Your task to perform on an android device: Open the calendar and show me this week's events Image 0: 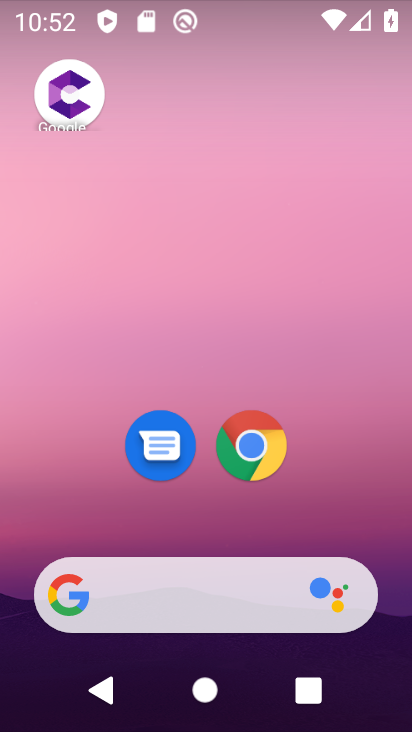
Step 0: drag from (216, 526) to (229, 110)
Your task to perform on an android device: Open the calendar and show me this week's events Image 1: 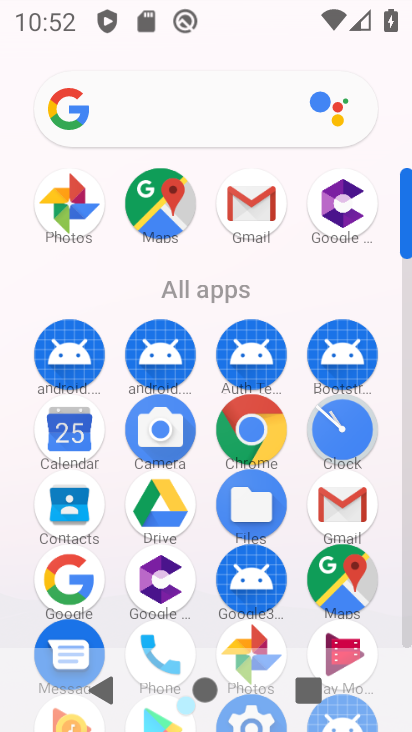
Step 1: click (66, 432)
Your task to perform on an android device: Open the calendar and show me this week's events Image 2: 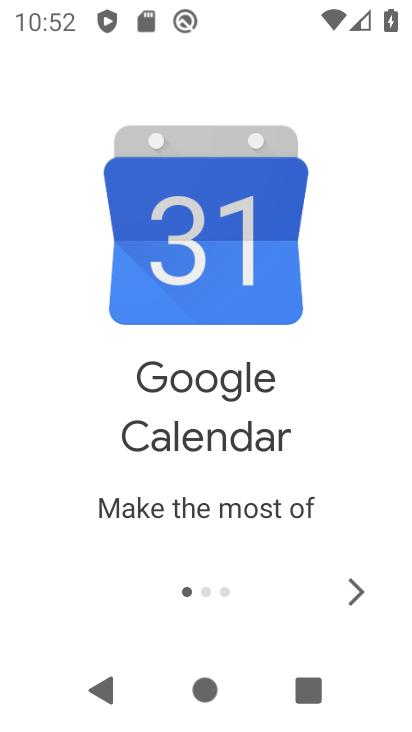
Step 2: click (353, 596)
Your task to perform on an android device: Open the calendar and show me this week's events Image 3: 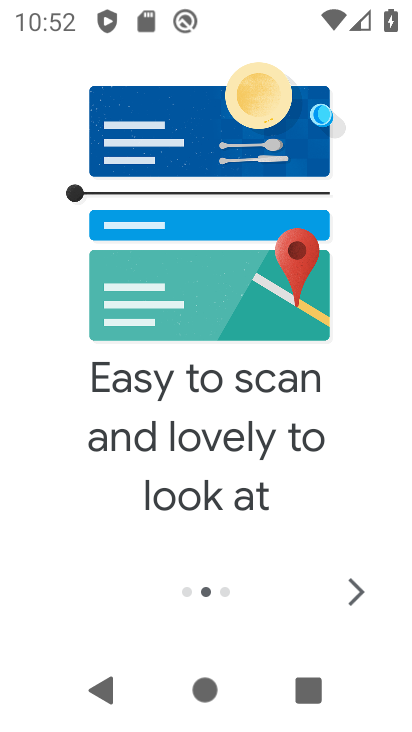
Step 3: click (353, 596)
Your task to perform on an android device: Open the calendar and show me this week's events Image 4: 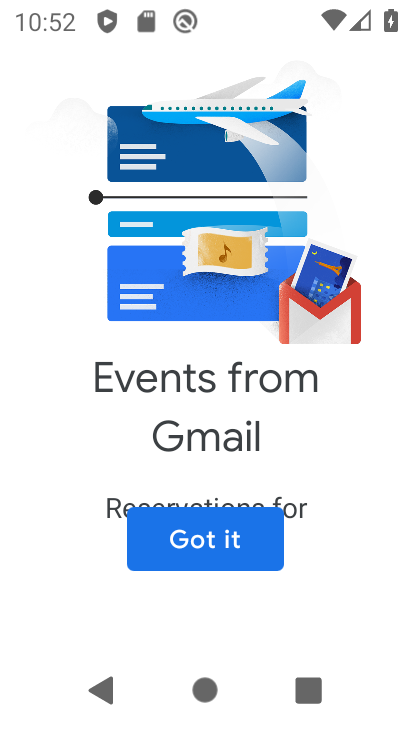
Step 4: click (224, 548)
Your task to perform on an android device: Open the calendar and show me this week's events Image 5: 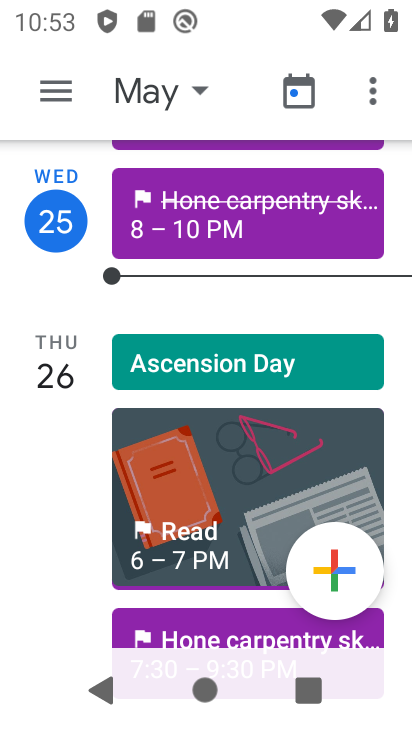
Step 5: click (53, 91)
Your task to perform on an android device: Open the calendar and show me this week's events Image 6: 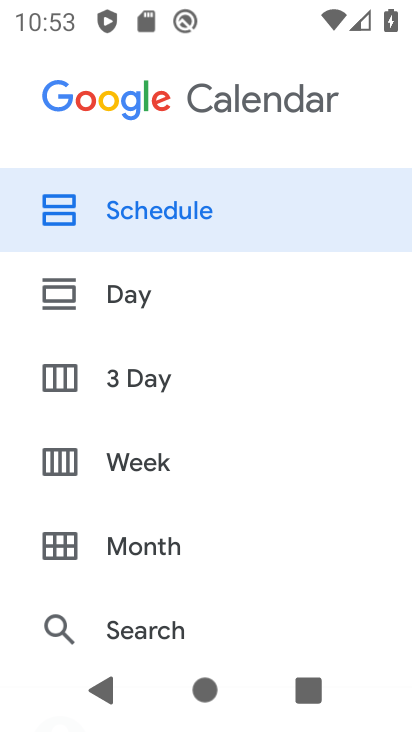
Step 6: click (161, 210)
Your task to perform on an android device: Open the calendar and show me this week's events Image 7: 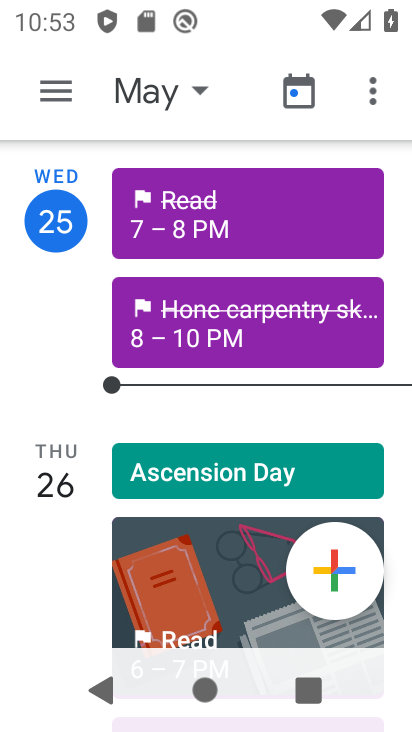
Step 7: click (173, 90)
Your task to perform on an android device: Open the calendar and show me this week's events Image 8: 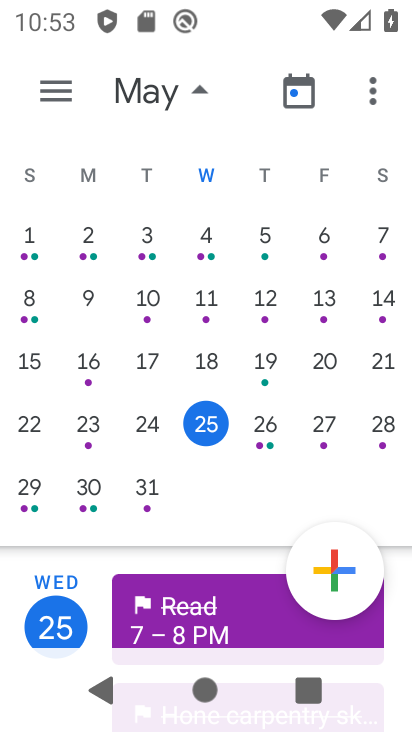
Step 8: click (29, 488)
Your task to perform on an android device: Open the calendar and show me this week's events Image 9: 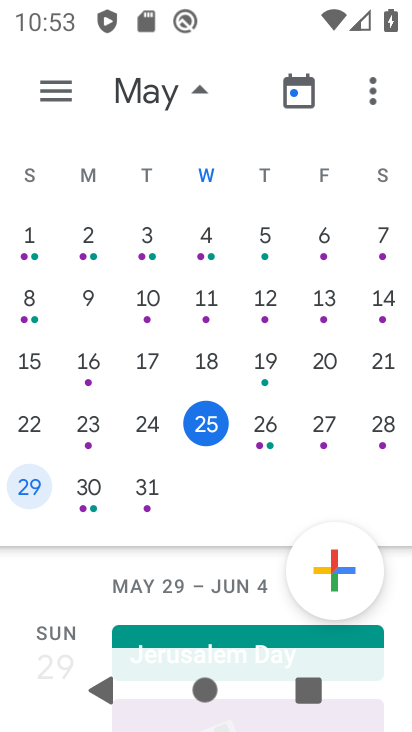
Step 9: task complete